Your task to perform on an android device: allow cookies in the chrome app Image 0: 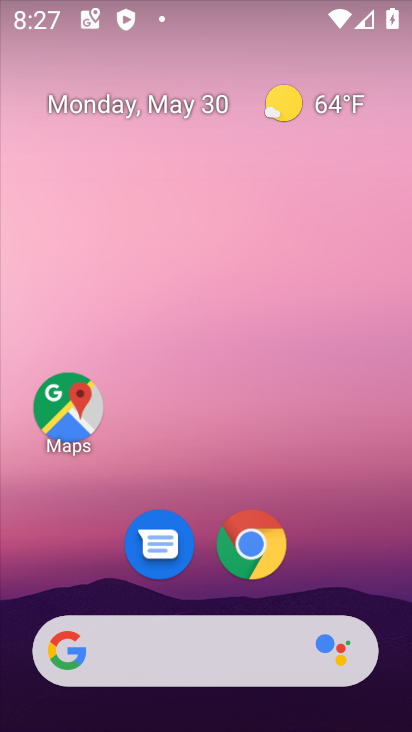
Step 0: click (257, 521)
Your task to perform on an android device: allow cookies in the chrome app Image 1: 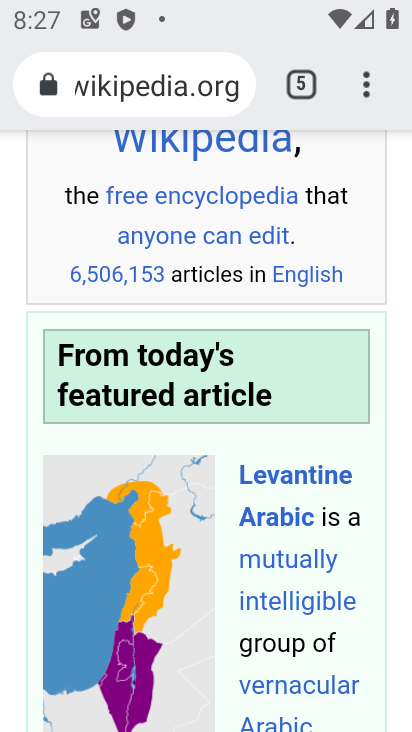
Step 1: click (368, 88)
Your task to perform on an android device: allow cookies in the chrome app Image 2: 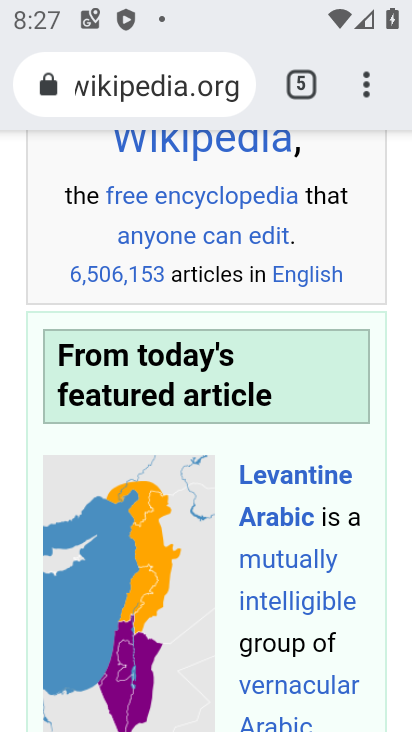
Step 2: drag from (364, 91) to (154, 618)
Your task to perform on an android device: allow cookies in the chrome app Image 3: 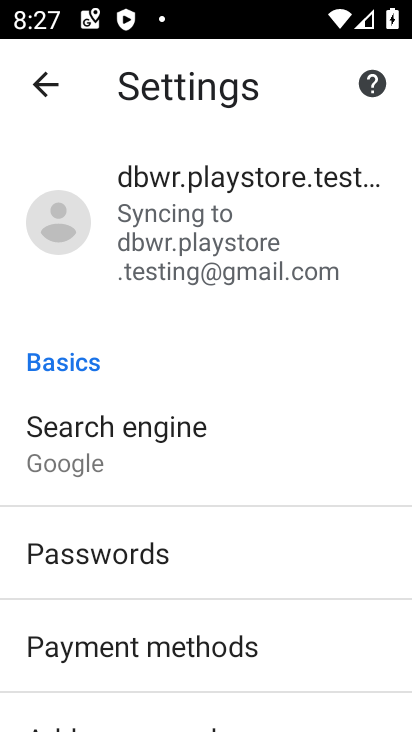
Step 3: drag from (160, 606) to (34, 4)
Your task to perform on an android device: allow cookies in the chrome app Image 4: 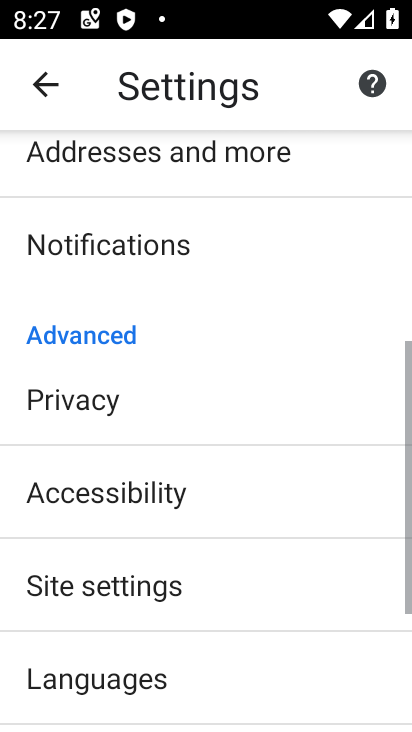
Step 4: click (53, 387)
Your task to perform on an android device: allow cookies in the chrome app Image 5: 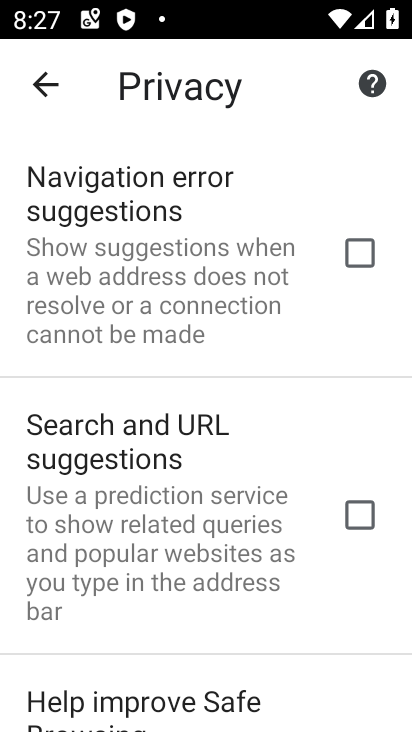
Step 5: drag from (205, 620) to (123, 98)
Your task to perform on an android device: allow cookies in the chrome app Image 6: 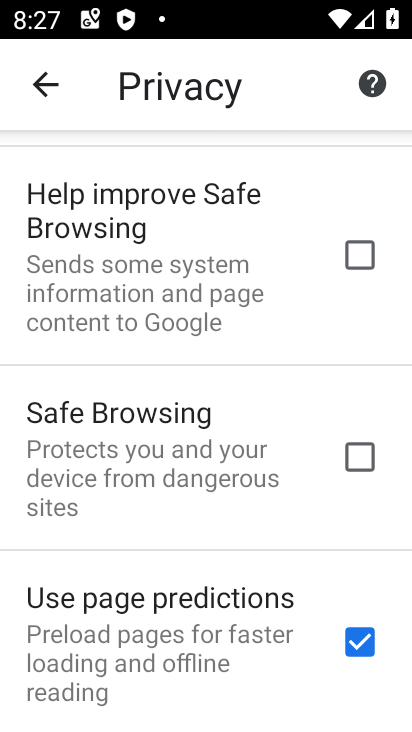
Step 6: drag from (217, 579) to (122, 0)
Your task to perform on an android device: allow cookies in the chrome app Image 7: 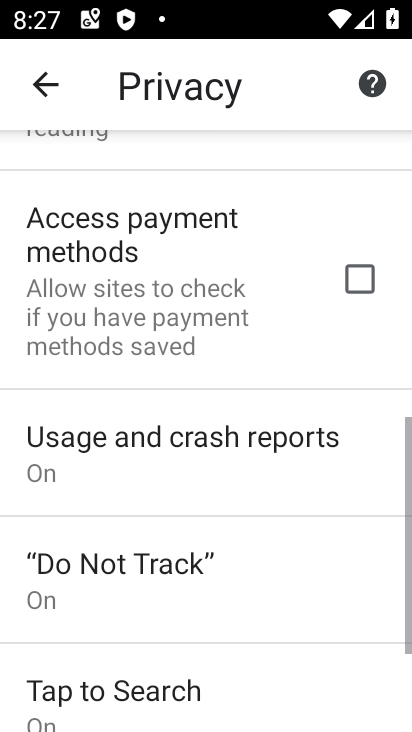
Step 7: drag from (161, 529) to (73, 37)
Your task to perform on an android device: allow cookies in the chrome app Image 8: 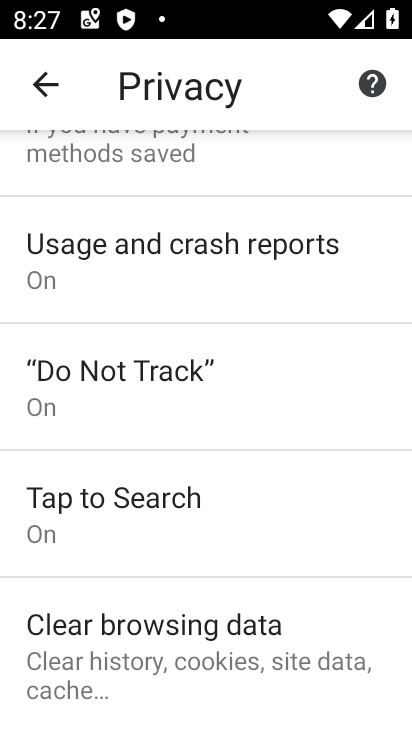
Step 8: click (124, 637)
Your task to perform on an android device: allow cookies in the chrome app Image 9: 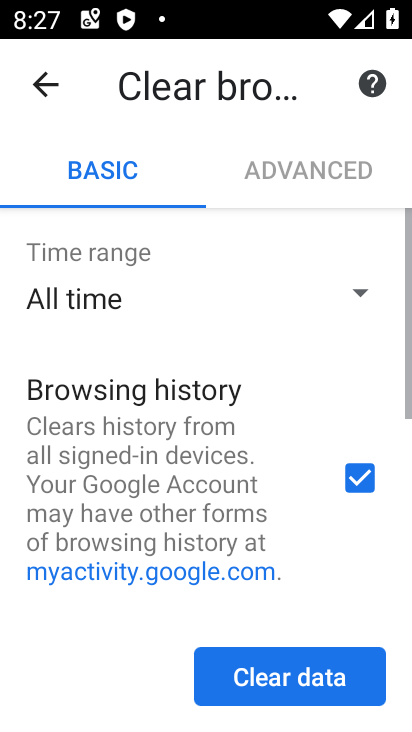
Step 9: drag from (129, 526) to (34, 78)
Your task to perform on an android device: allow cookies in the chrome app Image 10: 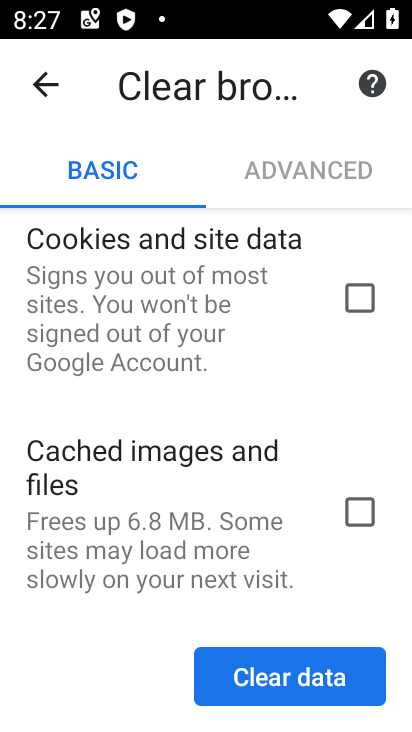
Step 10: click (351, 304)
Your task to perform on an android device: allow cookies in the chrome app Image 11: 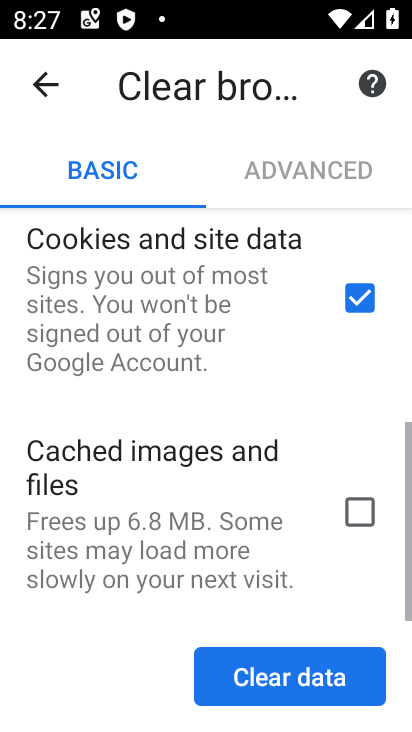
Step 11: click (356, 512)
Your task to perform on an android device: allow cookies in the chrome app Image 12: 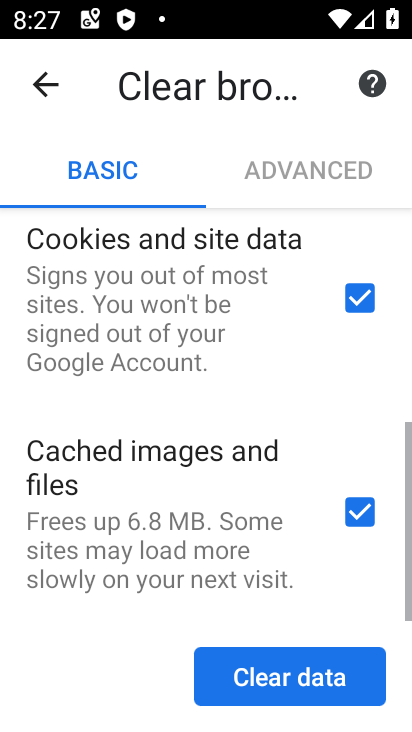
Step 12: click (310, 673)
Your task to perform on an android device: allow cookies in the chrome app Image 13: 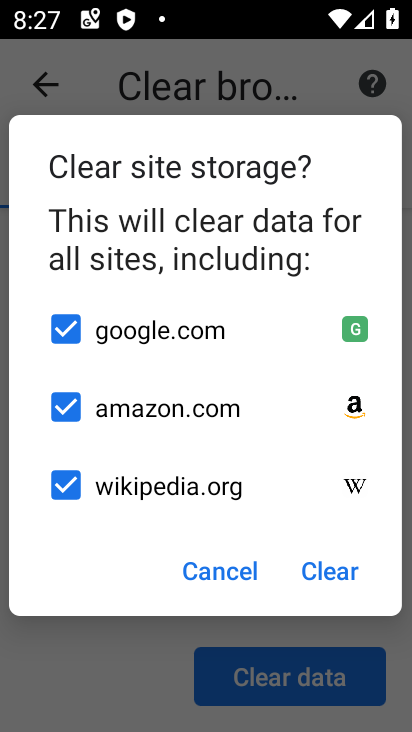
Step 13: click (339, 575)
Your task to perform on an android device: allow cookies in the chrome app Image 14: 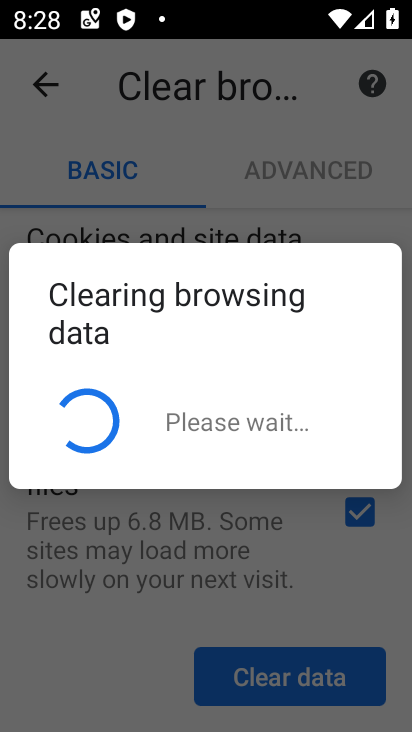
Step 14: task complete